Your task to perform on an android device: make emails show in primary in the gmail app Image 0: 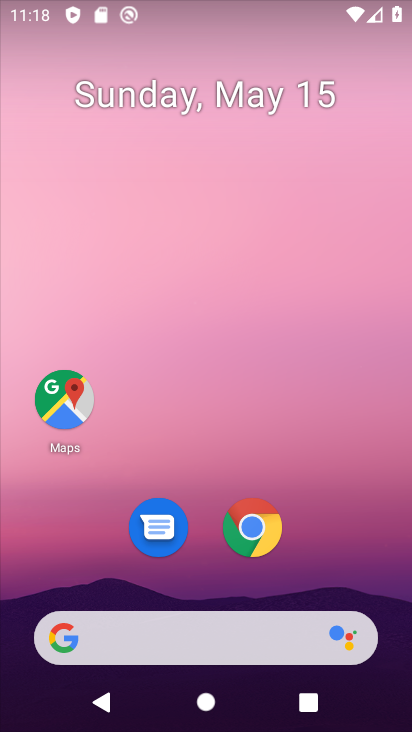
Step 0: drag from (349, 520) to (311, 263)
Your task to perform on an android device: make emails show in primary in the gmail app Image 1: 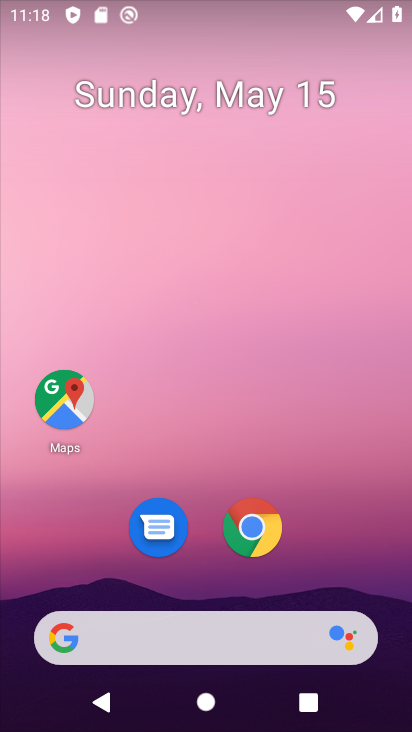
Step 1: drag from (354, 564) to (185, 38)
Your task to perform on an android device: make emails show in primary in the gmail app Image 2: 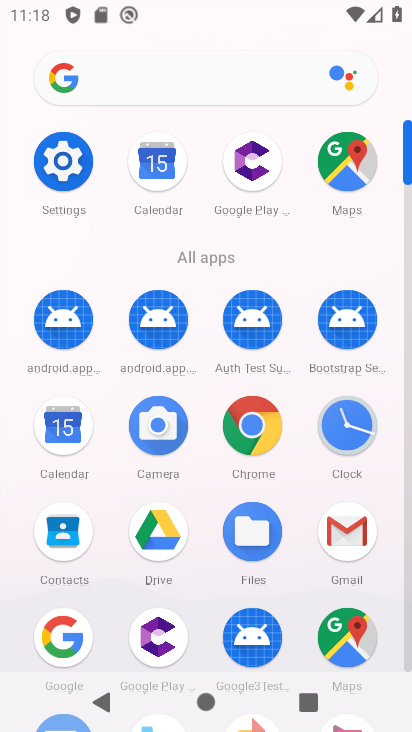
Step 2: click (355, 533)
Your task to perform on an android device: make emails show in primary in the gmail app Image 3: 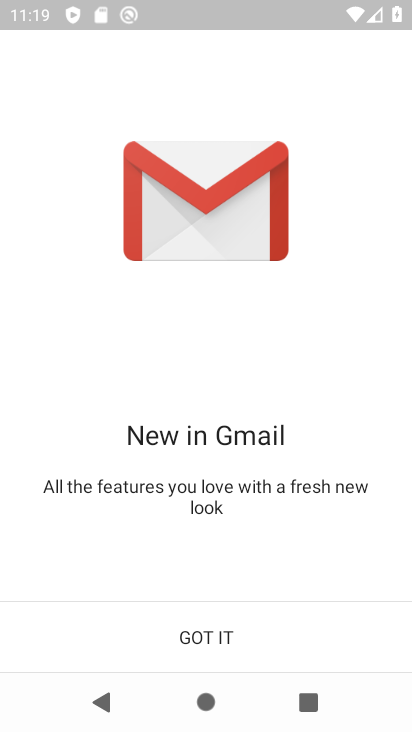
Step 3: click (222, 637)
Your task to perform on an android device: make emails show in primary in the gmail app Image 4: 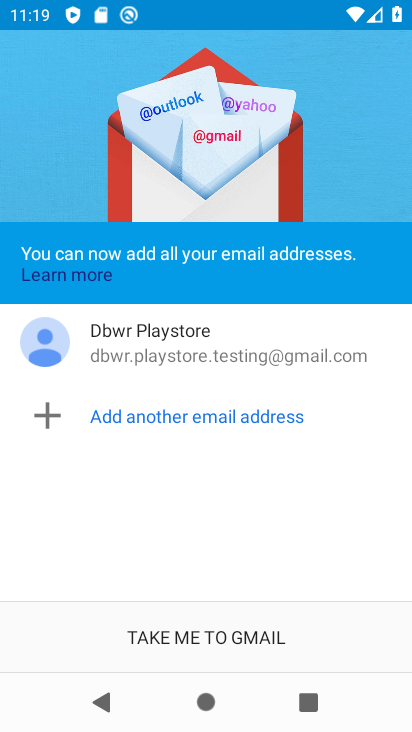
Step 4: click (222, 637)
Your task to perform on an android device: make emails show in primary in the gmail app Image 5: 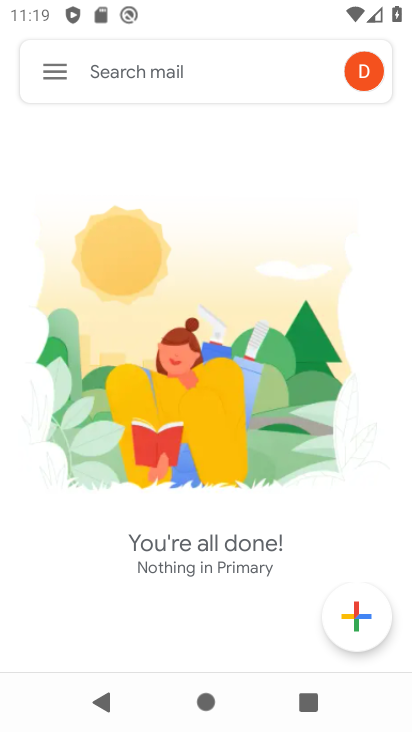
Step 5: click (64, 76)
Your task to perform on an android device: make emails show in primary in the gmail app Image 6: 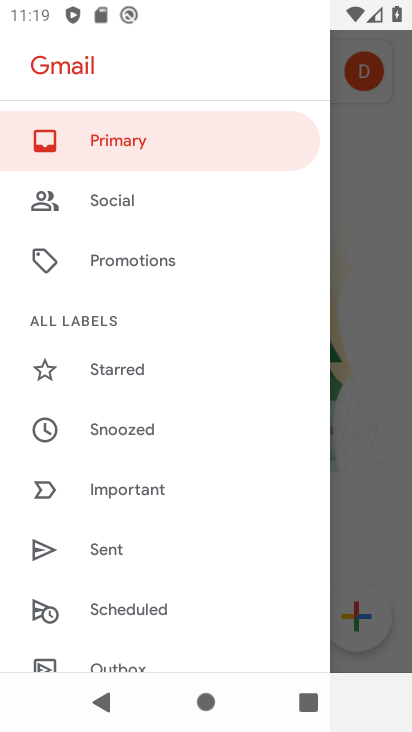
Step 6: drag from (147, 625) to (159, 319)
Your task to perform on an android device: make emails show in primary in the gmail app Image 7: 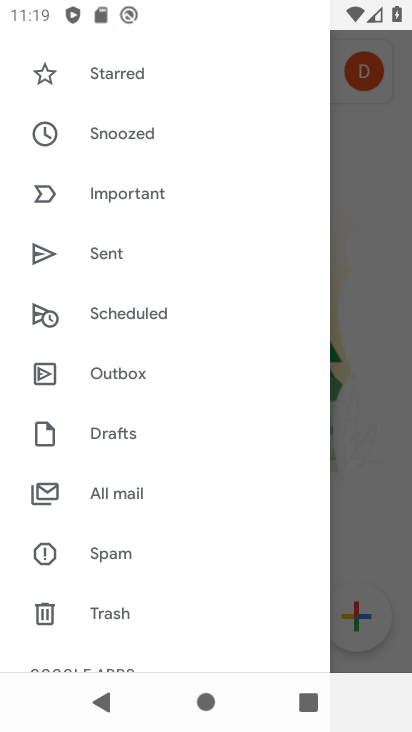
Step 7: drag from (149, 555) to (222, 297)
Your task to perform on an android device: make emails show in primary in the gmail app Image 8: 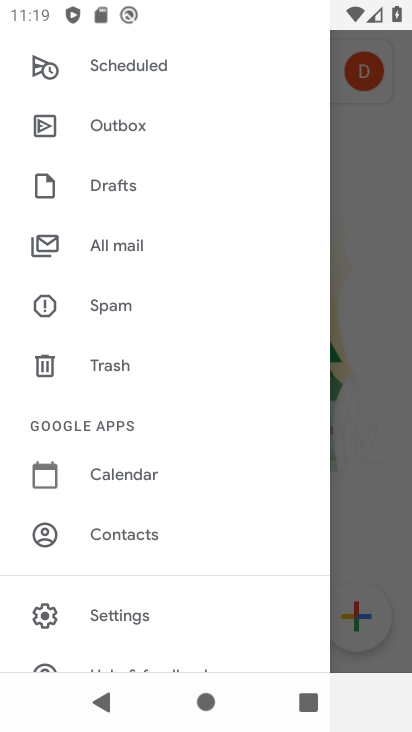
Step 8: click (210, 629)
Your task to perform on an android device: make emails show in primary in the gmail app Image 9: 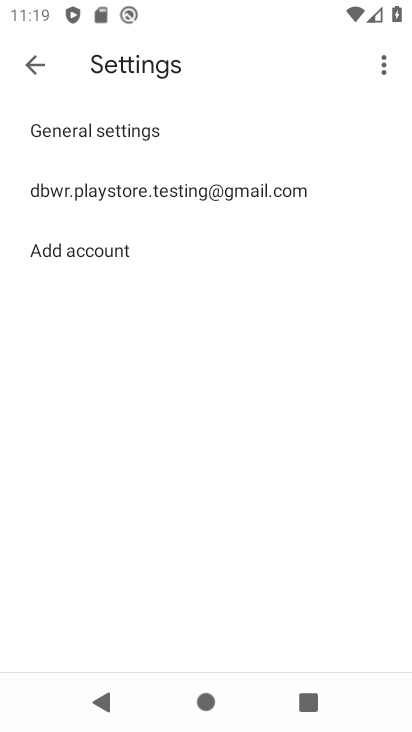
Step 9: click (133, 179)
Your task to perform on an android device: make emails show in primary in the gmail app Image 10: 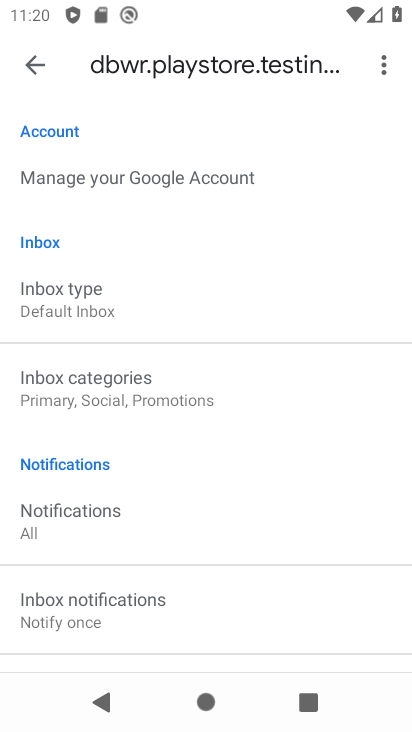
Step 10: click (166, 388)
Your task to perform on an android device: make emails show in primary in the gmail app Image 11: 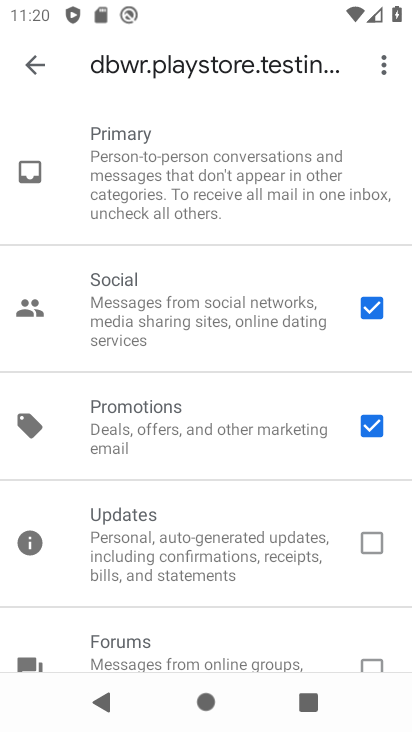
Step 11: click (231, 189)
Your task to perform on an android device: make emails show in primary in the gmail app Image 12: 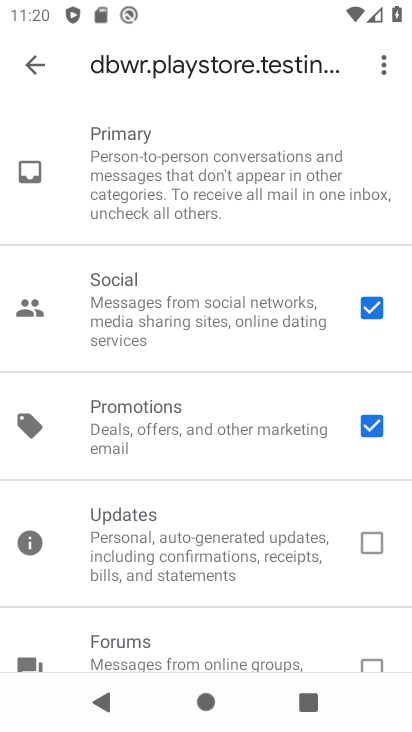
Step 12: task complete